Your task to perform on an android device: turn on translation in the chrome app Image 0: 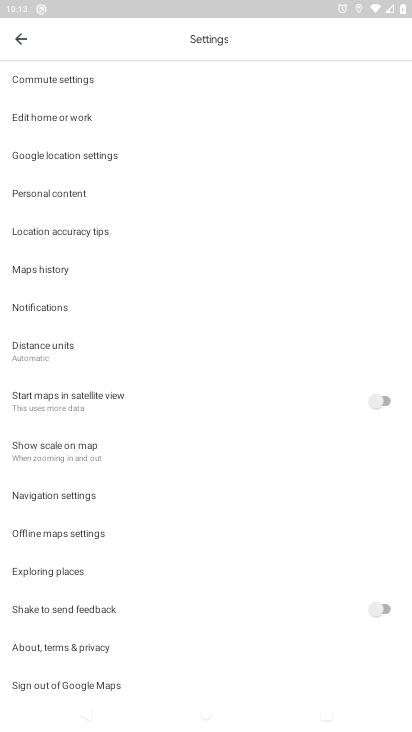
Step 0: press home button
Your task to perform on an android device: turn on translation in the chrome app Image 1: 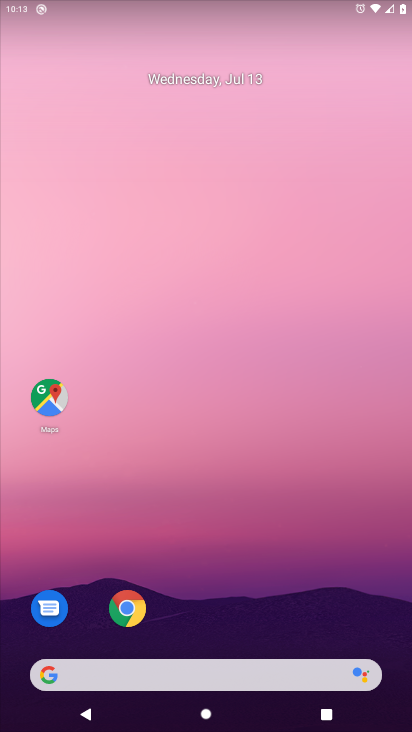
Step 1: click (119, 601)
Your task to perform on an android device: turn on translation in the chrome app Image 2: 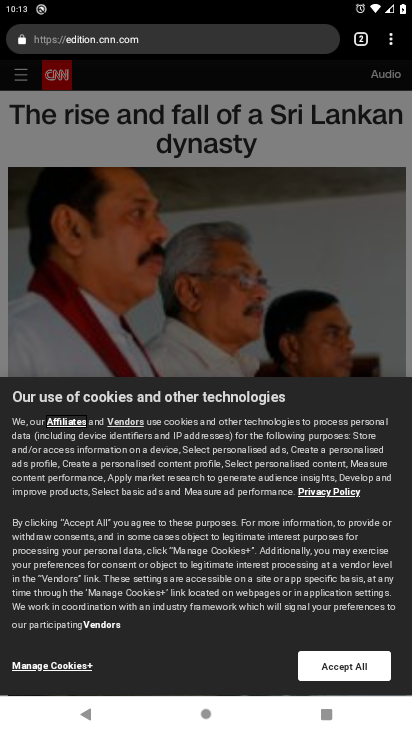
Step 2: click (391, 41)
Your task to perform on an android device: turn on translation in the chrome app Image 3: 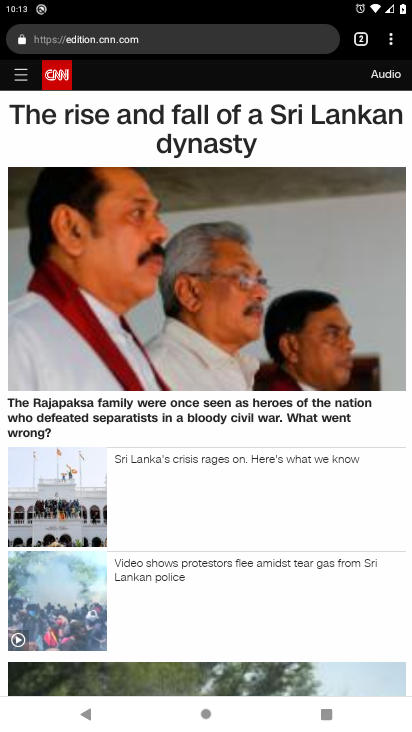
Step 3: click (389, 37)
Your task to perform on an android device: turn on translation in the chrome app Image 4: 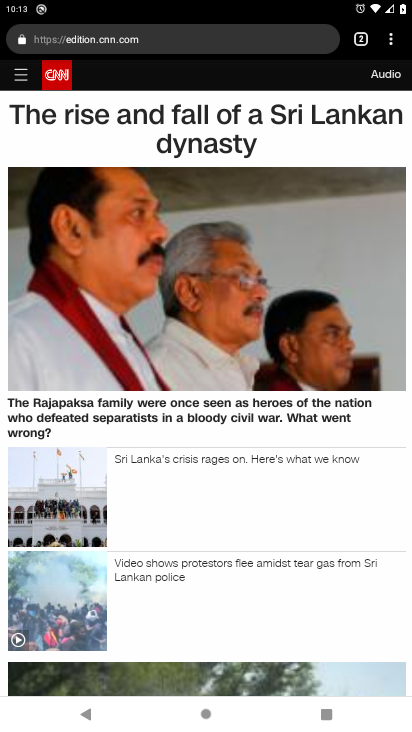
Step 4: click (395, 36)
Your task to perform on an android device: turn on translation in the chrome app Image 5: 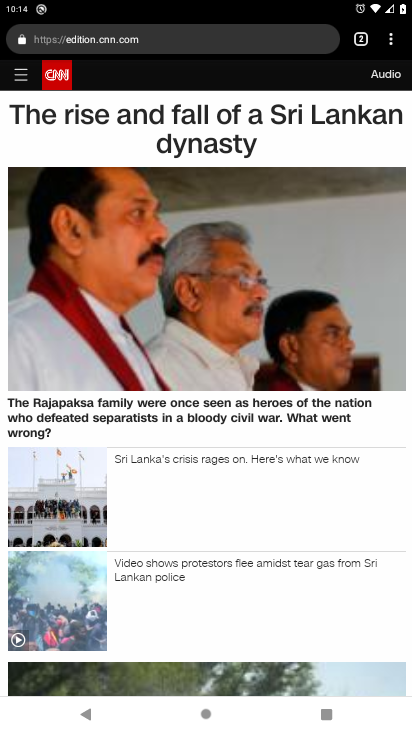
Step 5: task complete